Your task to perform on an android device: open chrome privacy settings Image 0: 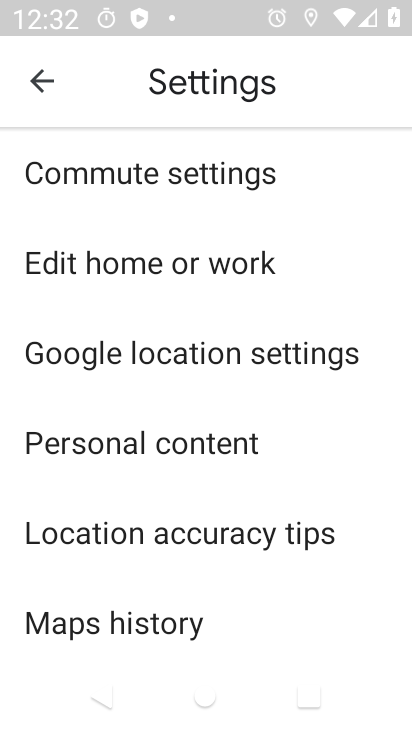
Step 0: press home button
Your task to perform on an android device: open chrome privacy settings Image 1: 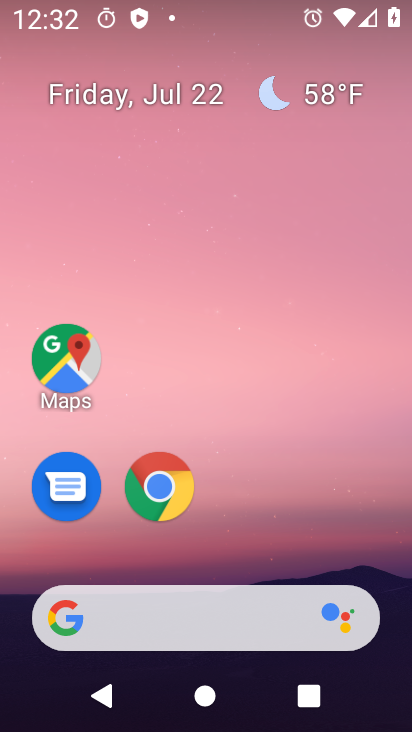
Step 1: drag from (355, 524) to (369, 210)
Your task to perform on an android device: open chrome privacy settings Image 2: 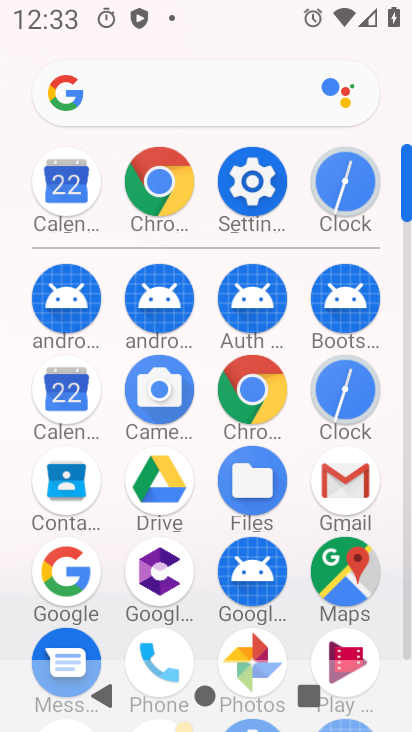
Step 2: click (264, 391)
Your task to perform on an android device: open chrome privacy settings Image 3: 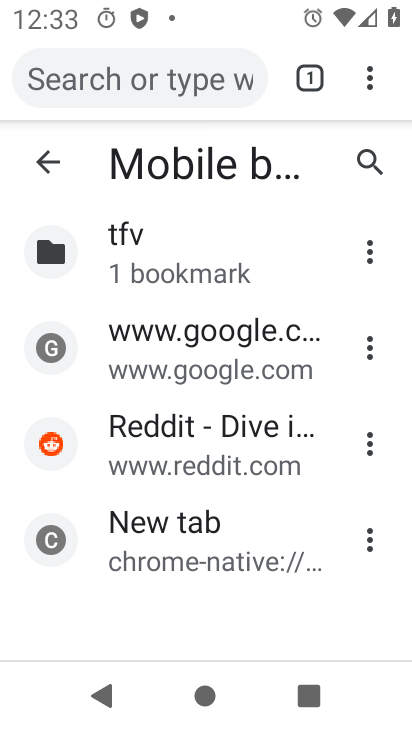
Step 3: click (368, 86)
Your task to perform on an android device: open chrome privacy settings Image 4: 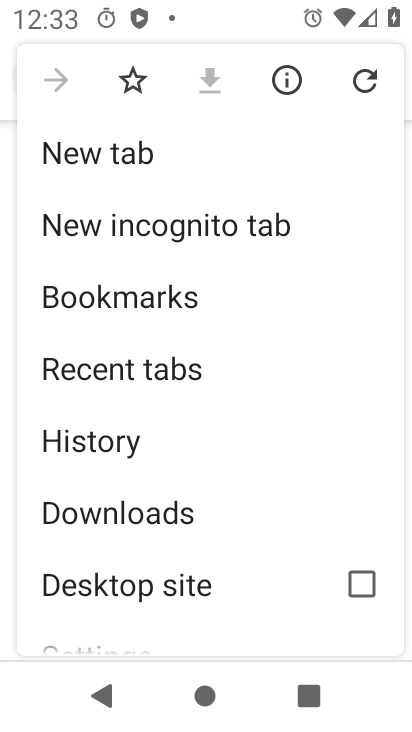
Step 4: drag from (308, 419) to (310, 339)
Your task to perform on an android device: open chrome privacy settings Image 5: 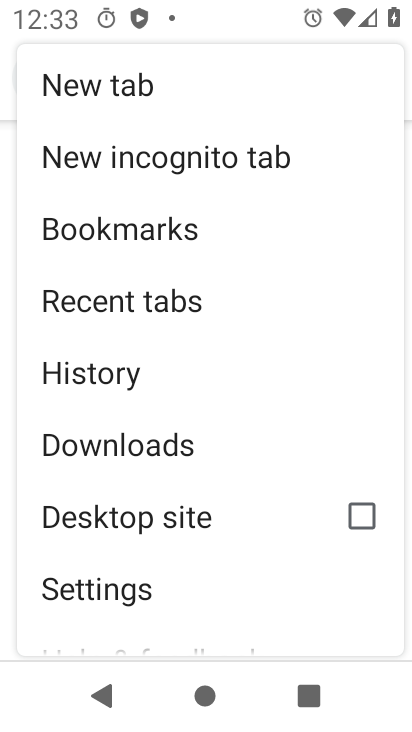
Step 5: drag from (278, 475) to (290, 373)
Your task to perform on an android device: open chrome privacy settings Image 6: 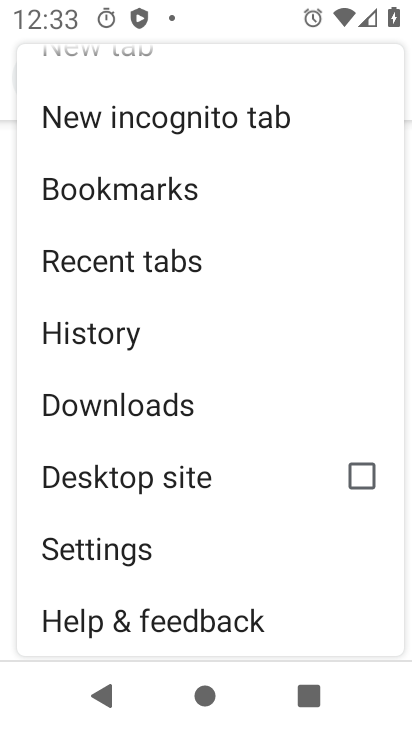
Step 6: click (245, 552)
Your task to perform on an android device: open chrome privacy settings Image 7: 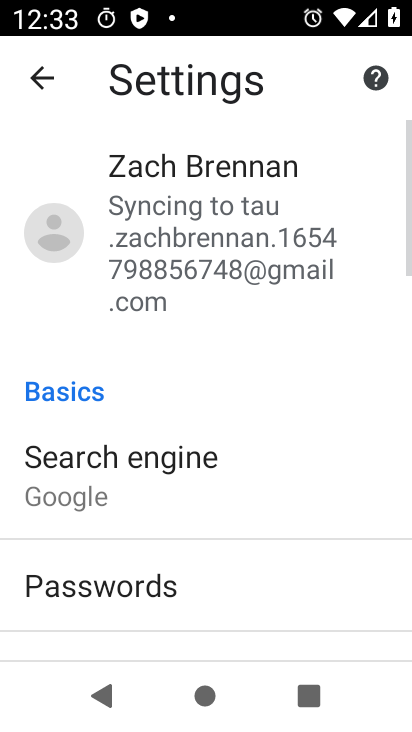
Step 7: drag from (245, 552) to (259, 449)
Your task to perform on an android device: open chrome privacy settings Image 8: 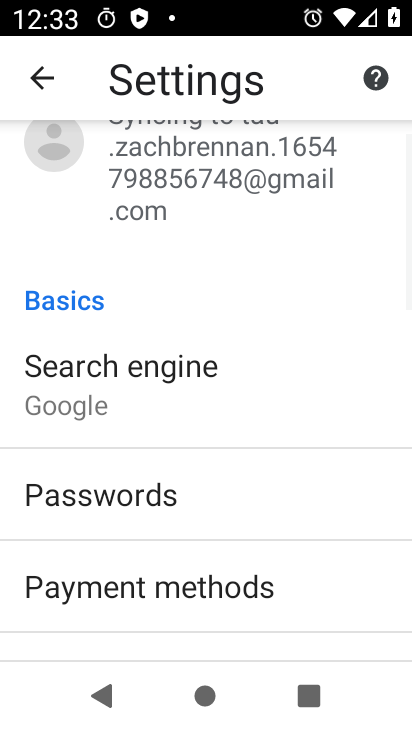
Step 8: drag from (303, 544) to (319, 474)
Your task to perform on an android device: open chrome privacy settings Image 9: 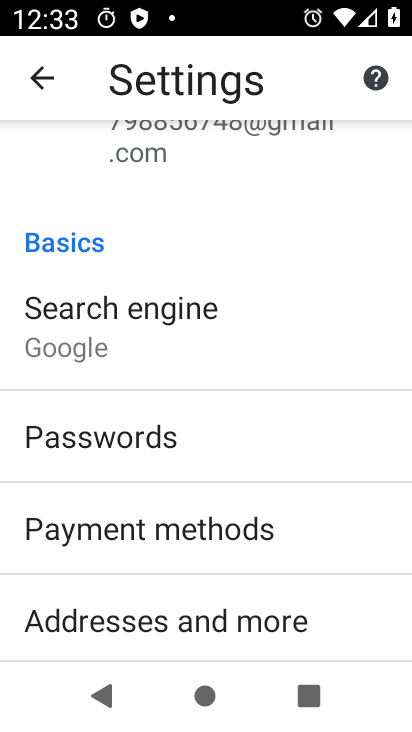
Step 9: drag from (336, 562) to (339, 479)
Your task to perform on an android device: open chrome privacy settings Image 10: 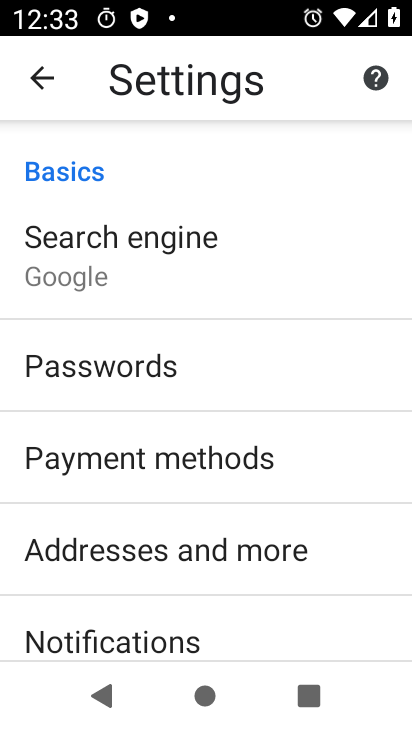
Step 10: drag from (337, 588) to (346, 496)
Your task to perform on an android device: open chrome privacy settings Image 11: 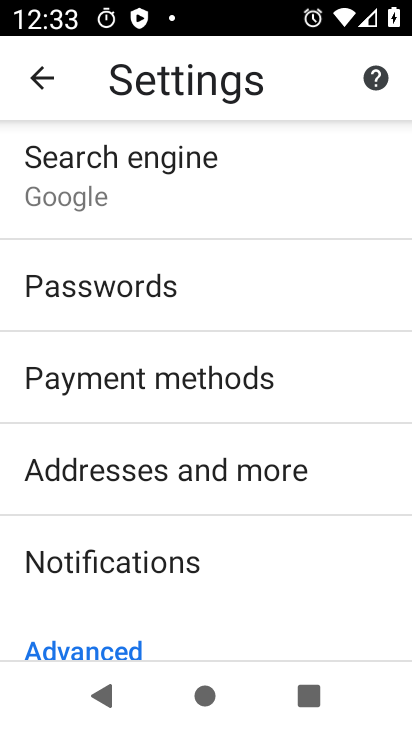
Step 11: drag from (321, 589) to (322, 491)
Your task to perform on an android device: open chrome privacy settings Image 12: 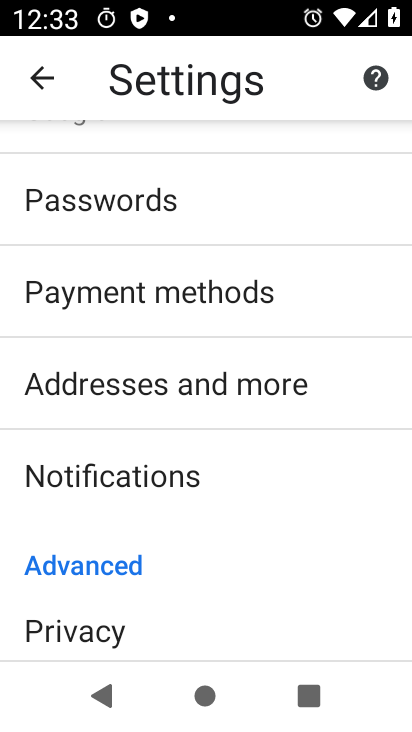
Step 12: drag from (301, 587) to (304, 422)
Your task to perform on an android device: open chrome privacy settings Image 13: 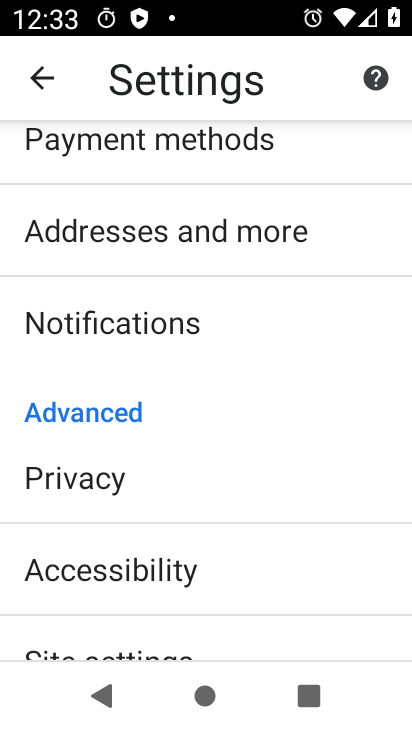
Step 13: click (301, 484)
Your task to perform on an android device: open chrome privacy settings Image 14: 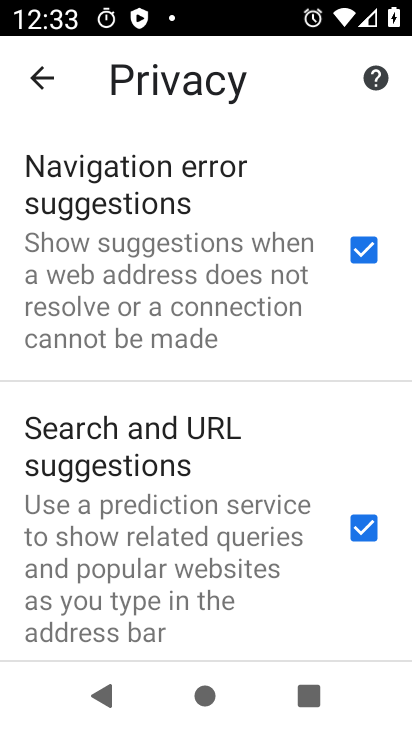
Step 14: task complete